Your task to perform on an android device: empty trash in the gmail app Image 0: 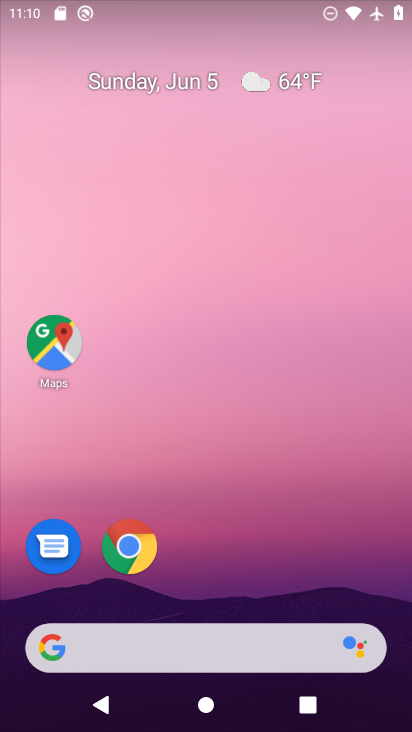
Step 0: drag from (207, 597) to (223, 221)
Your task to perform on an android device: empty trash in the gmail app Image 1: 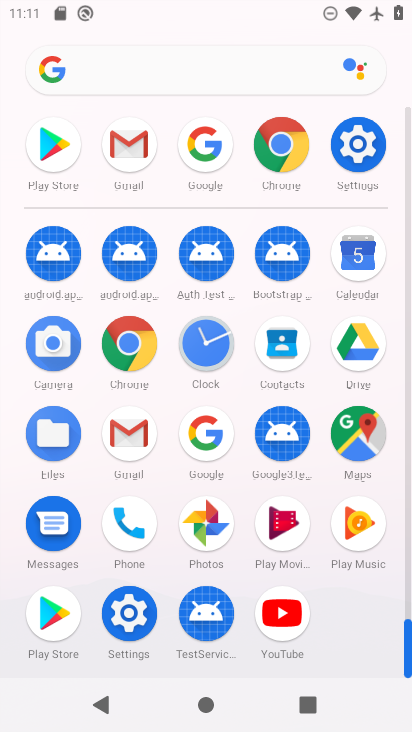
Step 1: click (122, 425)
Your task to perform on an android device: empty trash in the gmail app Image 2: 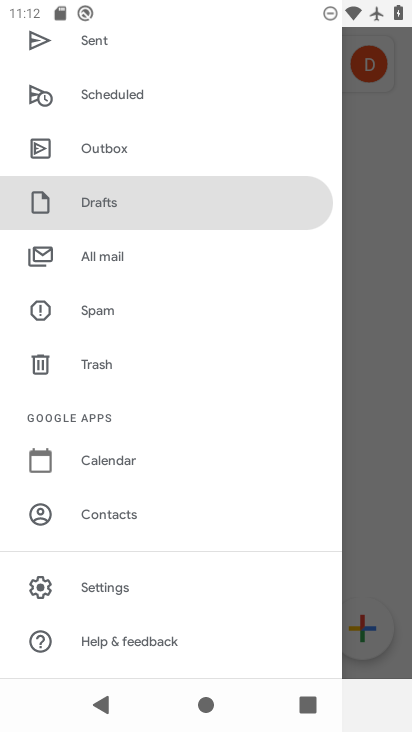
Step 2: click (156, 371)
Your task to perform on an android device: empty trash in the gmail app Image 3: 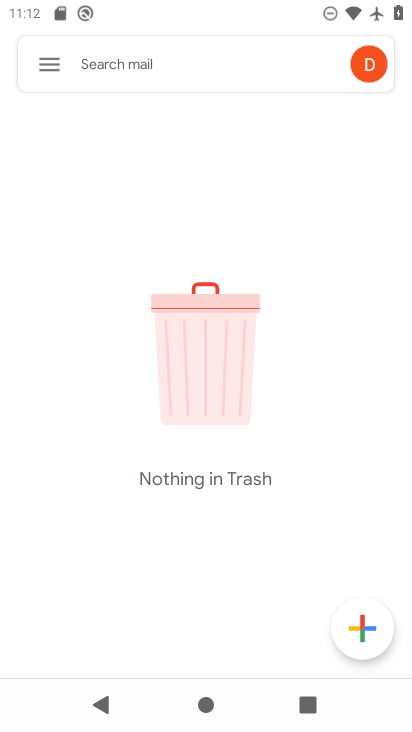
Step 3: drag from (191, 283) to (205, 169)
Your task to perform on an android device: empty trash in the gmail app Image 4: 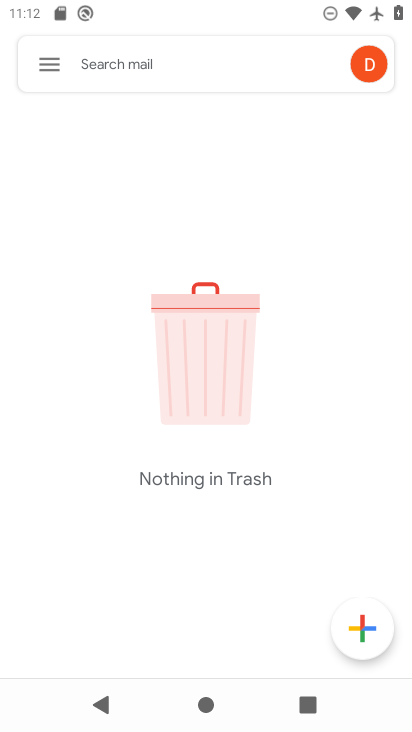
Step 4: click (242, 201)
Your task to perform on an android device: empty trash in the gmail app Image 5: 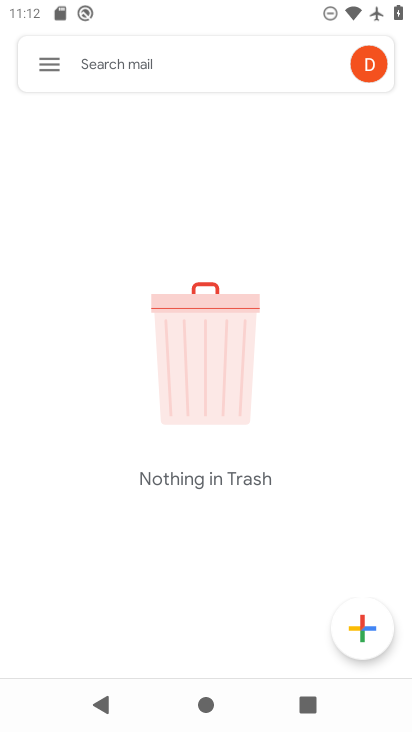
Step 5: click (66, 67)
Your task to perform on an android device: empty trash in the gmail app Image 6: 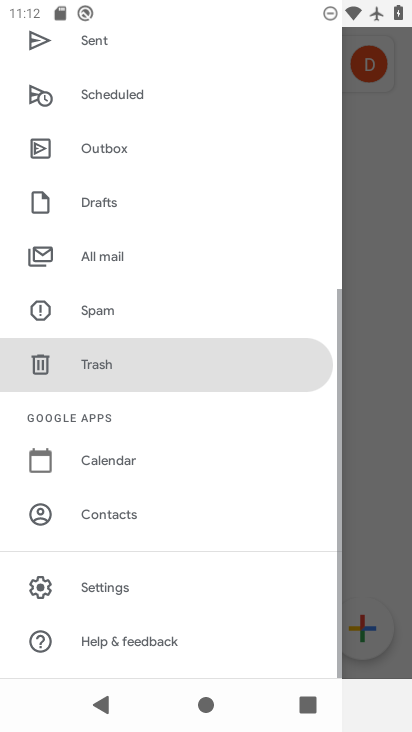
Step 6: drag from (223, 487) to (252, 182)
Your task to perform on an android device: empty trash in the gmail app Image 7: 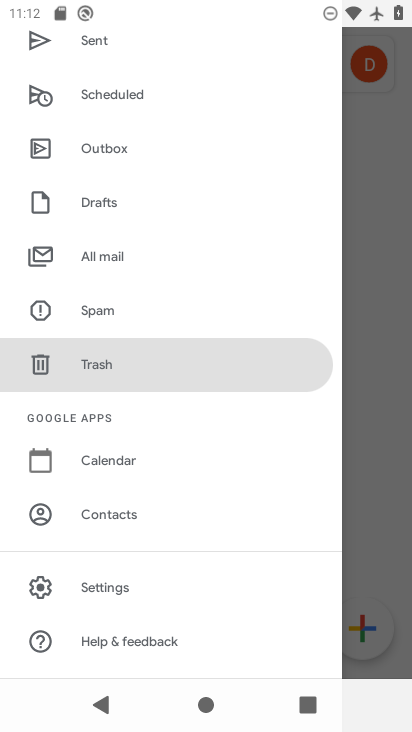
Step 7: click (97, 370)
Your task to perform on an android device: empty trash in the gmail app Image 8: 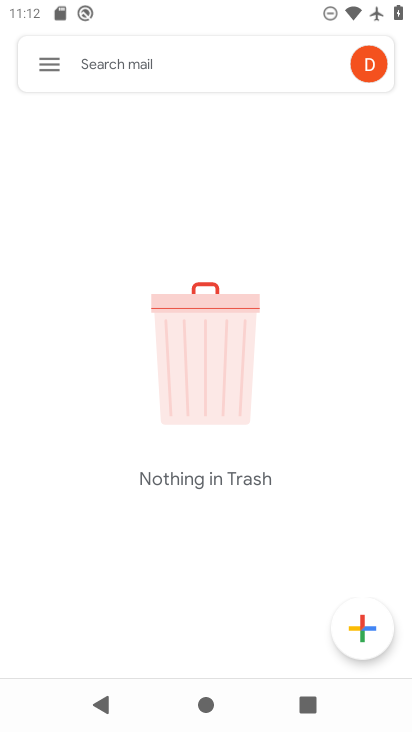
Step 8: task complete